Your task to perform on an android device: turn off data saver in the chrome app Image 0: 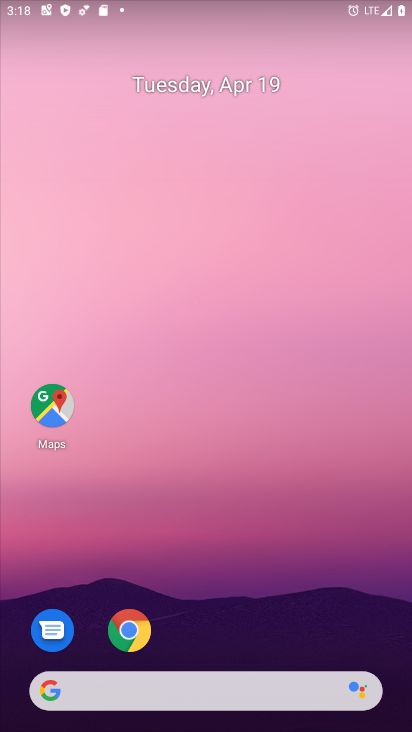
Step 0: click (125, 631)
Your task to perform on an android device: turn off data saver in the chrome app Image 1: 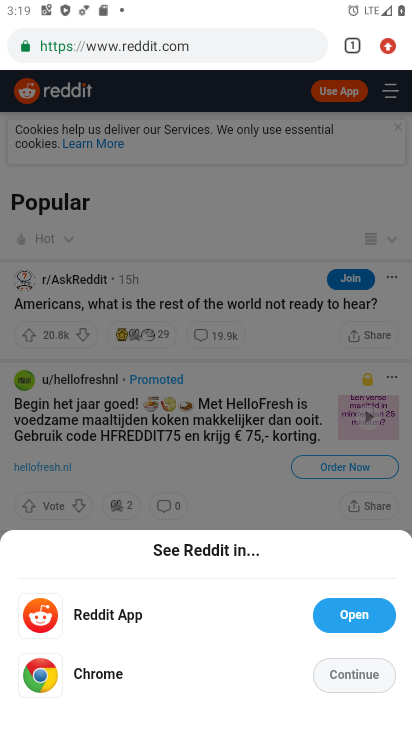
Step 1: click (390, 44)
Your task to perform on an android device: turn off data saver in the chrome app Image 2: 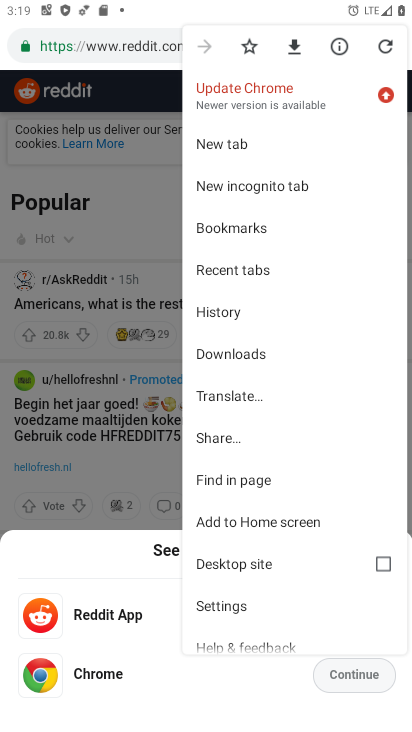
Step 2: click (216, 606)
Your task to perform on an android device: turn off data saver in the chrome app Image 3: 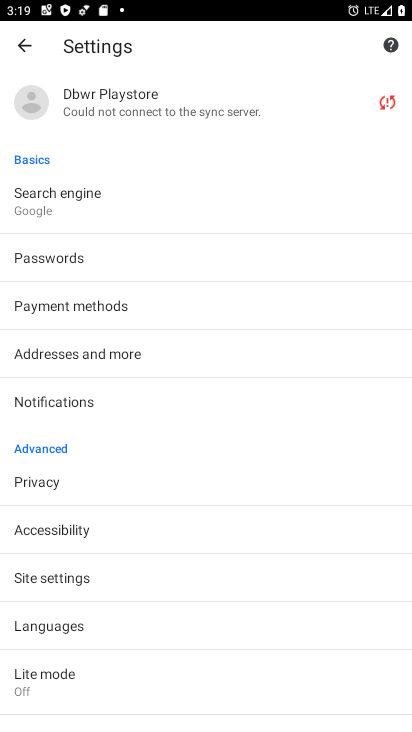
Step 3: click (61, 673)
Your task to perform on an android device: turn off data saver in the chrome app Image 4: 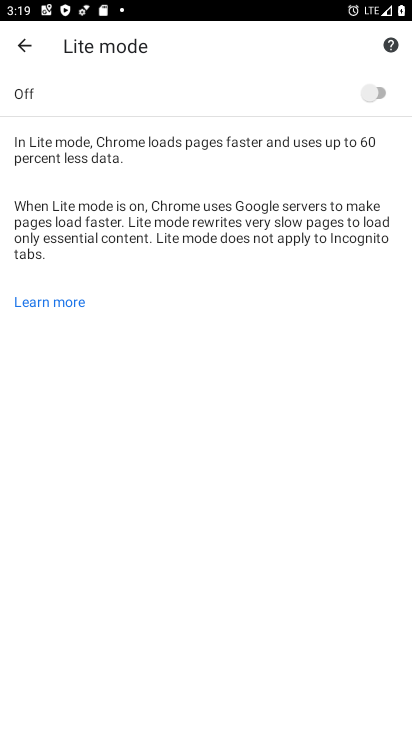
Step 4: task complete